Your task to perform on an android device: turn smart compose on in the gmail app Image 0: 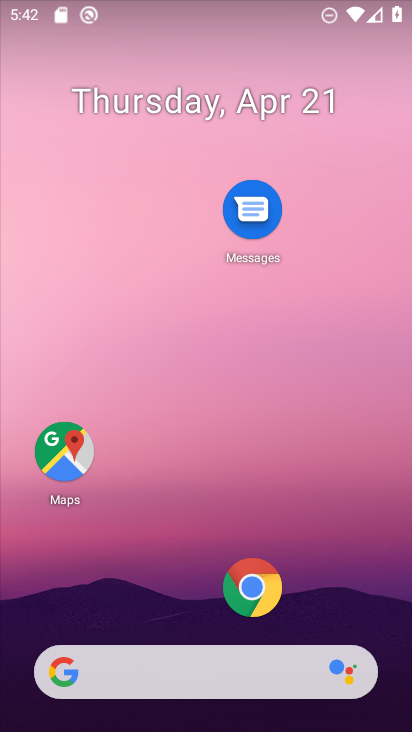
Step 0: drag from (197, 584) to (185, 53)
Your task to perform on an android device: turn smart compose on in the gmail app Image 1: 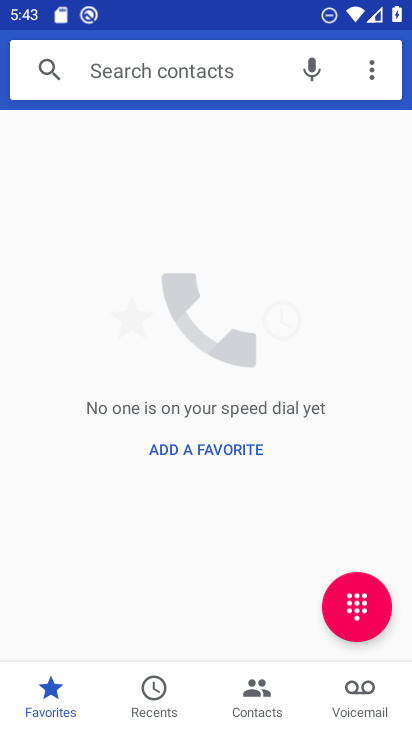
Step 1: press home button
Your task to perform on an android device: turn smart compose on in the gmail app Image 2: 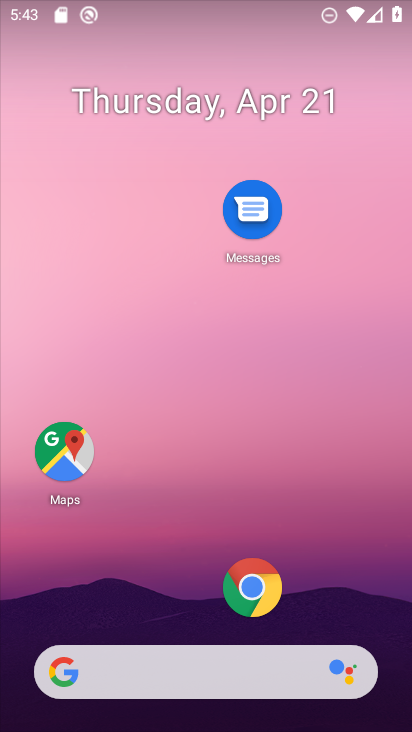
Step 2: drag from (198, 618) to (189, 158)
Your task to perform on an android device: turn smart compose on in the gmail app Image 3: 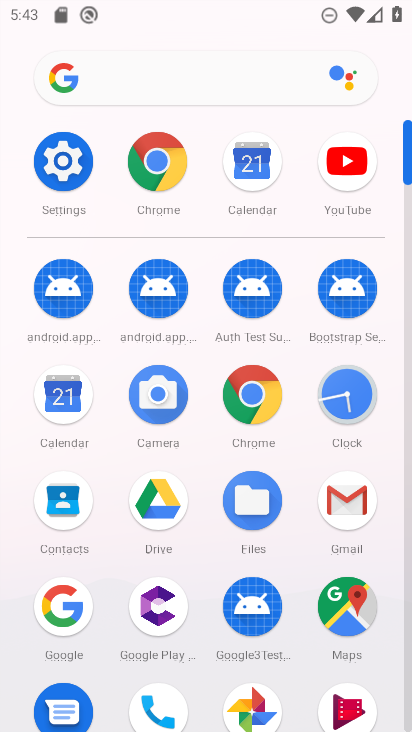
Step 3: click (343, 497)
Your task to perform on an android device: turn smart compose on in the gmail app Image 4: 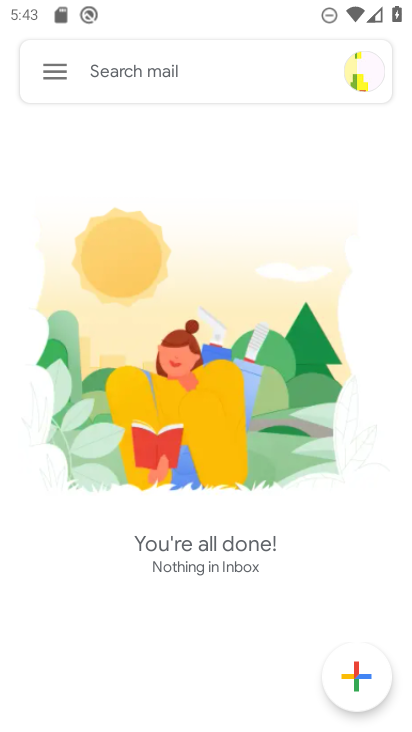
Step 4: click (46, 78)
Your task to perform on an android device: turn smart compose on in the gmail app Image 5: 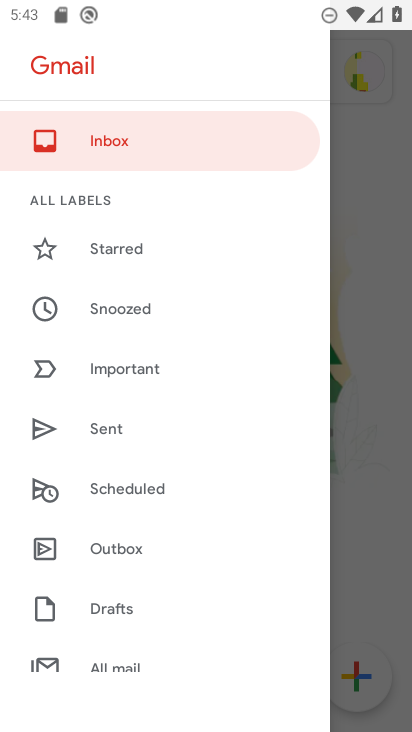
Step 5: drag from (130, 647) to (131, 164)
Your task to perform on an android device: turn smart compose on in the gmail app Image 6: 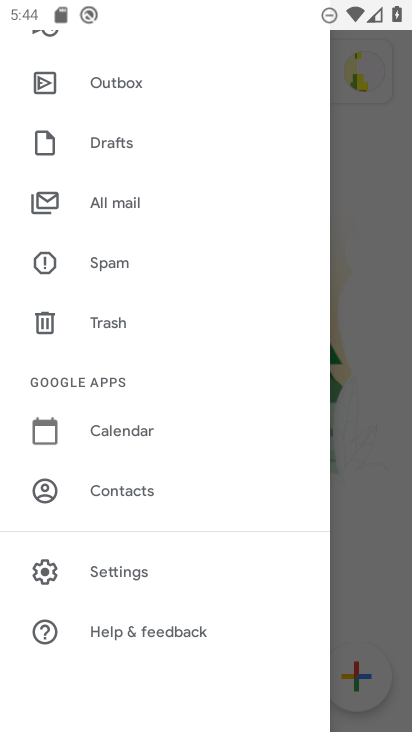
Step 6: click (139, 572)
Your task to perform on an android device: turn smart compose on in the gmail app Image 7: 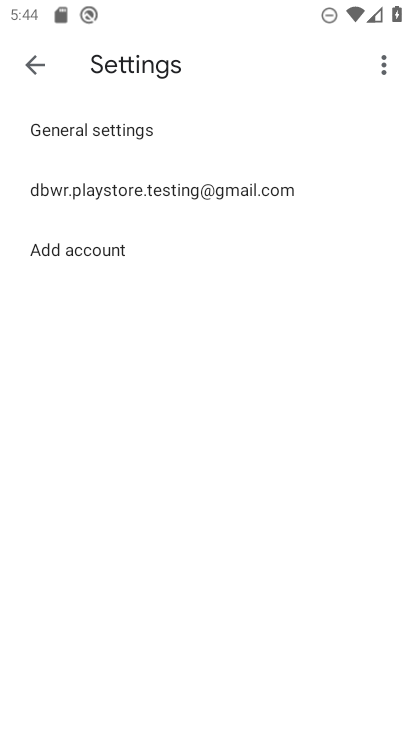
Step 7: click (141, 189)
Your task to perform on an android device: turn smart compose on in the gmail app Image 8: 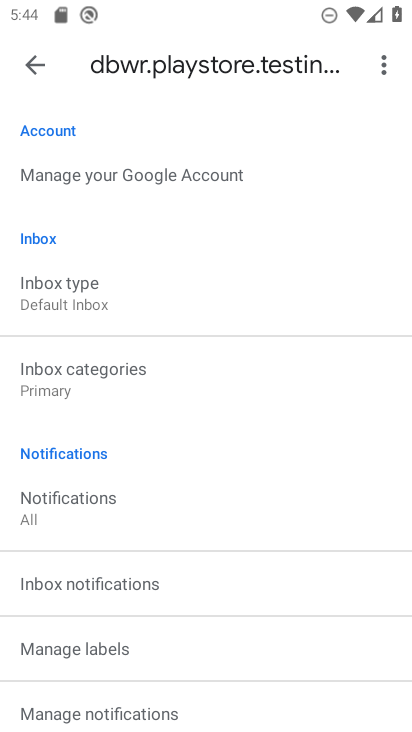
Step 8: task complete